Your task to perform on an android device: Open Google Chrome and open the bookmarks view Image 0: 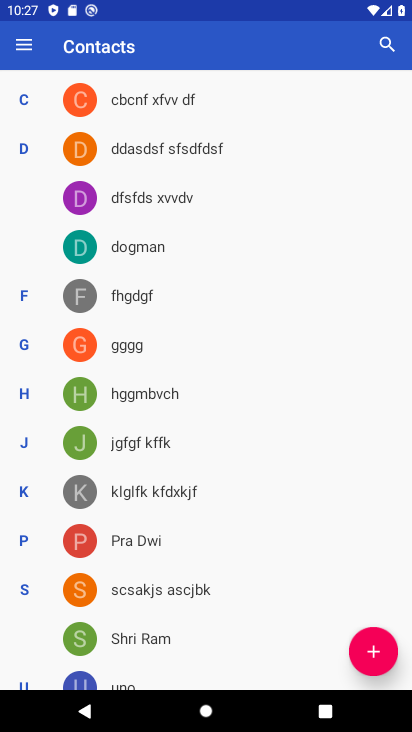
Step 0: press home button
Your task to perform on an android device: Open Google Chrome and open the bookmarks view Image 1: 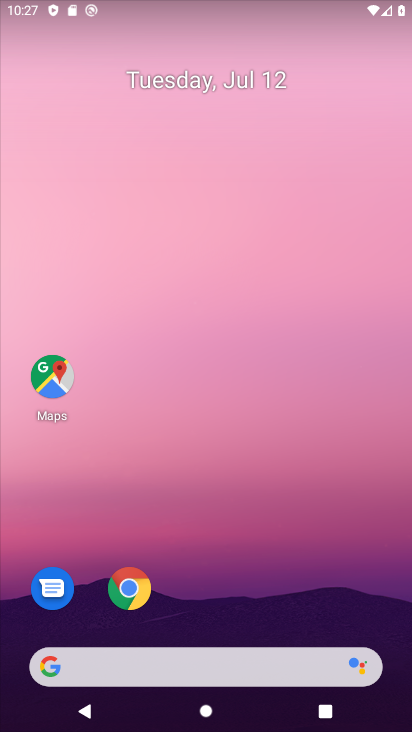
Step 1: click (136, 603)
Your task to perform on an android device: Open Google Chrome and open the bookmarks view Image 2: 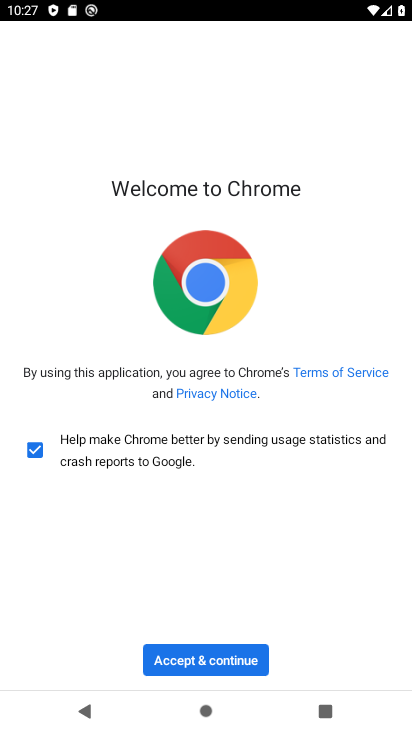
Step 2: click (184, 658)
Your task to perform on an android device: Open Google Chrome and open the bookmarks view Image 3: 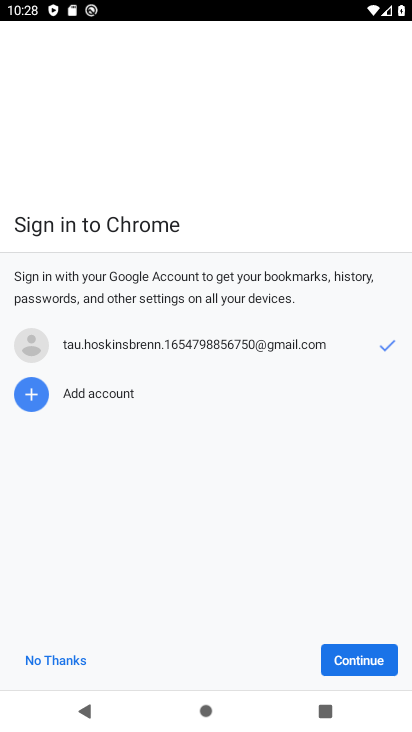
Step 3: click (376, 665)
Your task to perform on an android device: Open Google Chrome and open the bookmarks view Image 4: 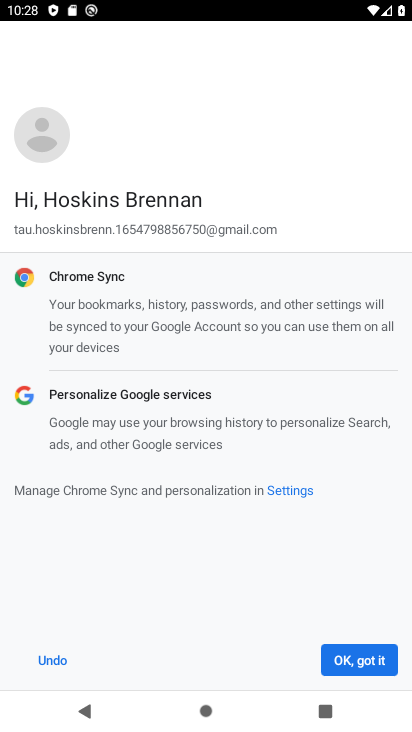
Step 4: click (374, 663)
Your task to perform on an android device: Open Google Chrome and open the bookmarks view Image 5: 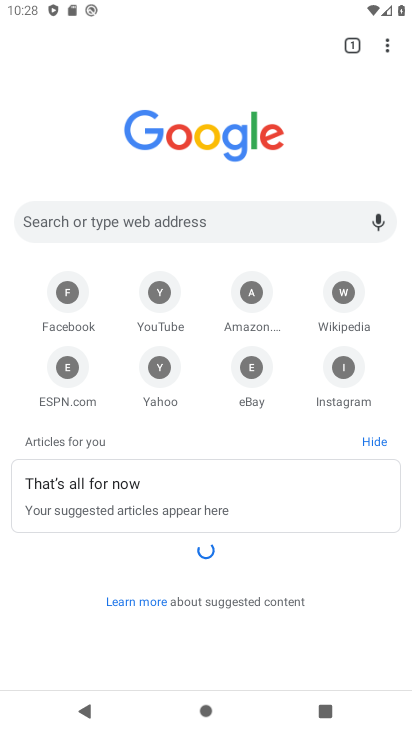
Step 5: task complete